Your task to perform on an android device: Show the shopping cart on target.com. Add "razer blade" to the cart on target.com, then select checkout. Image 0: 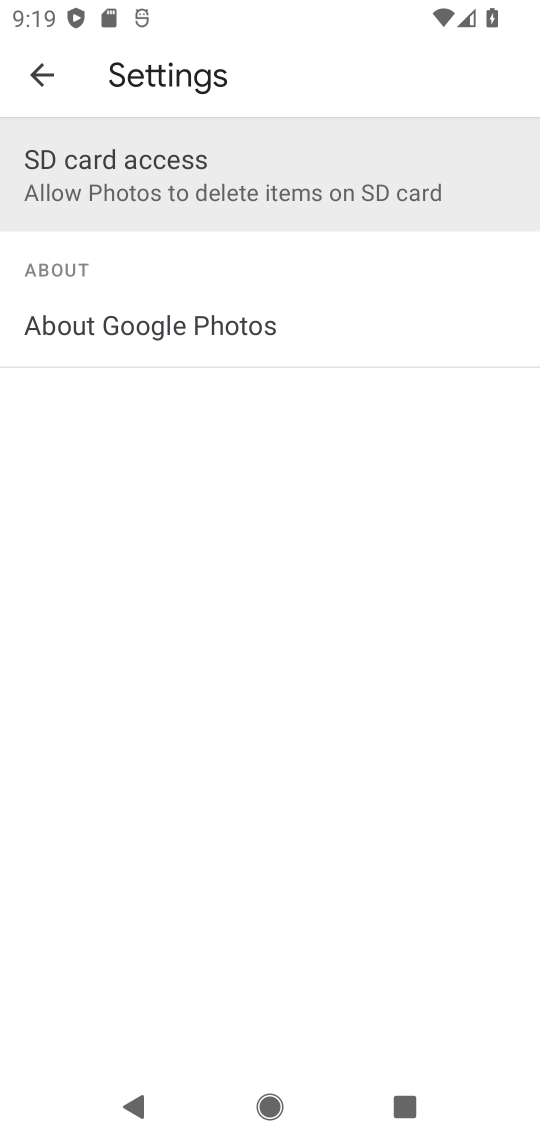
Step 0: press home button
Your task to perform on an android device: Show the shopping cart on target.com. Add "razer blade" to the cart on target.com, then select checkout. Image 1: 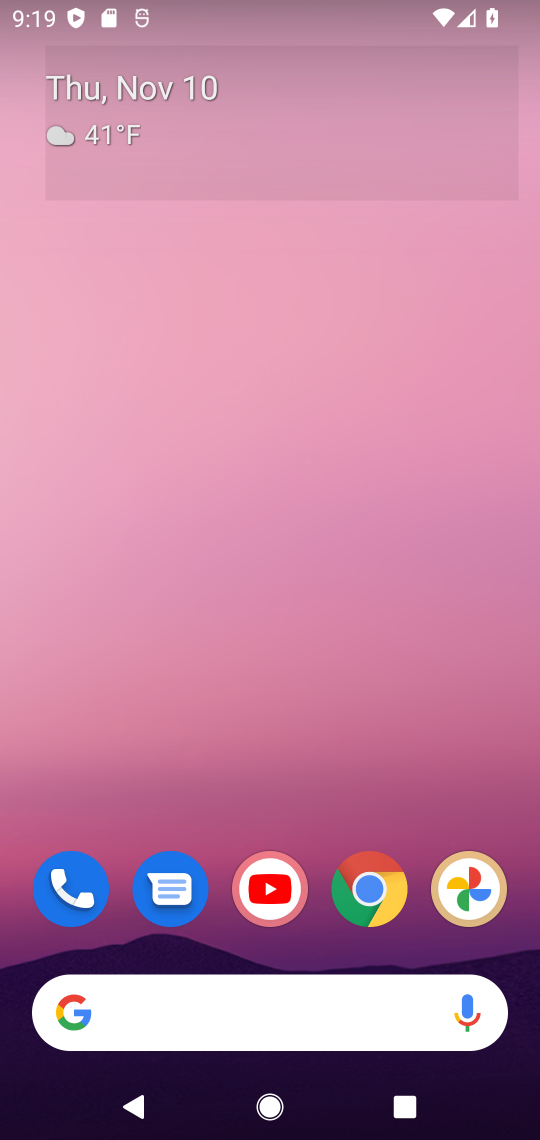
Step 1: click (369, 891)
Your task to perform on an android device: Show the shopping cart on target.com. Add "razer blade" to the cart on target.com, then select checkout. Image 2: 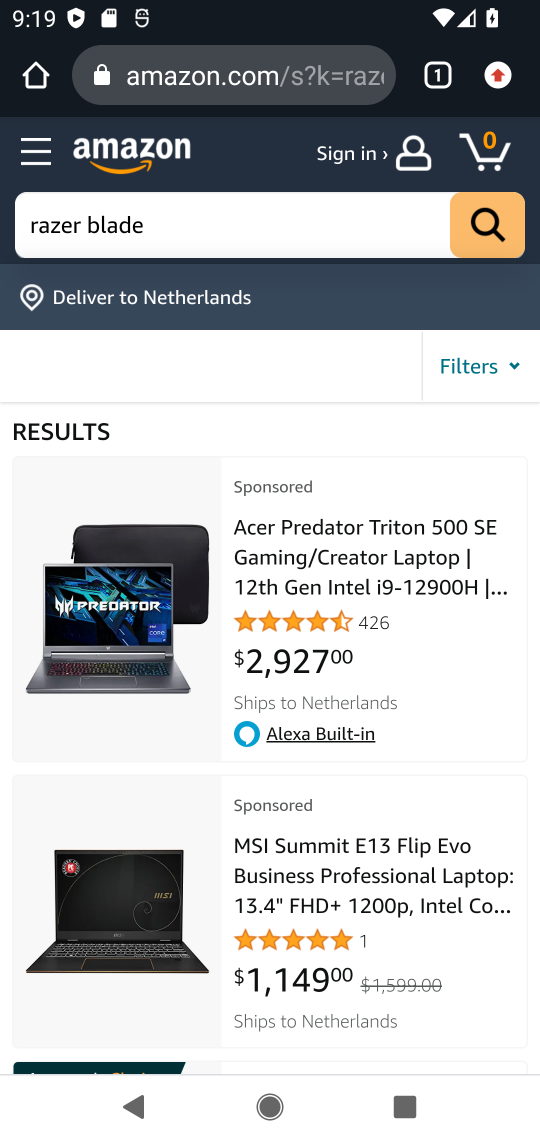
Step 2: click (277, 76)
Your task to perform on an android device: Show the shopping cart on target.com. Add "razer blade" to the cart on target.com, then select checkout. Image 3: 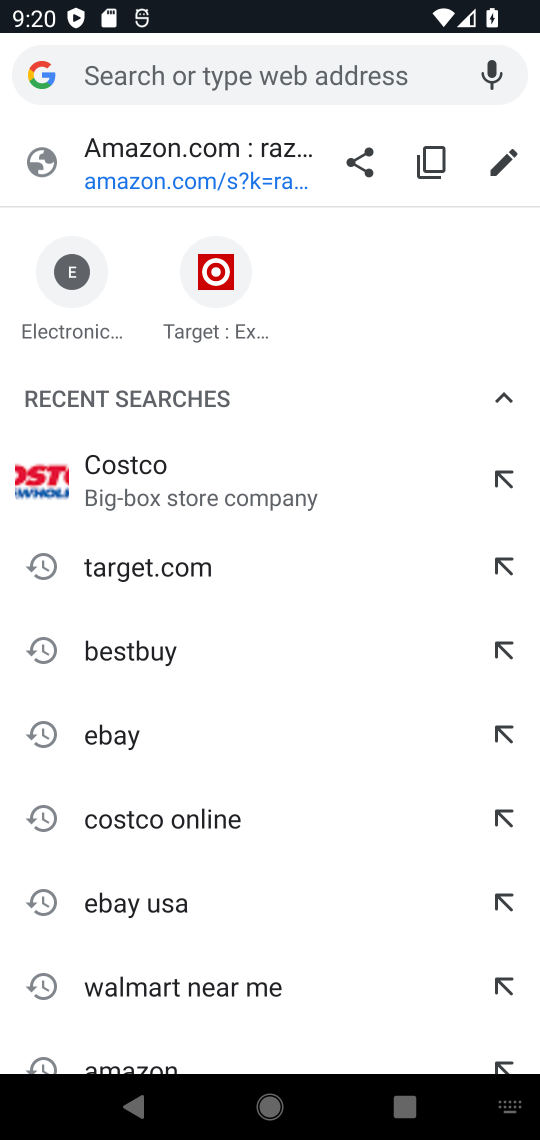
Step 3: click (116, 562)
Your task to perform on an android device: Show the shopping cart on target.com. Add "razer blade" to the cart on target.com, then select checkout. Image 4: 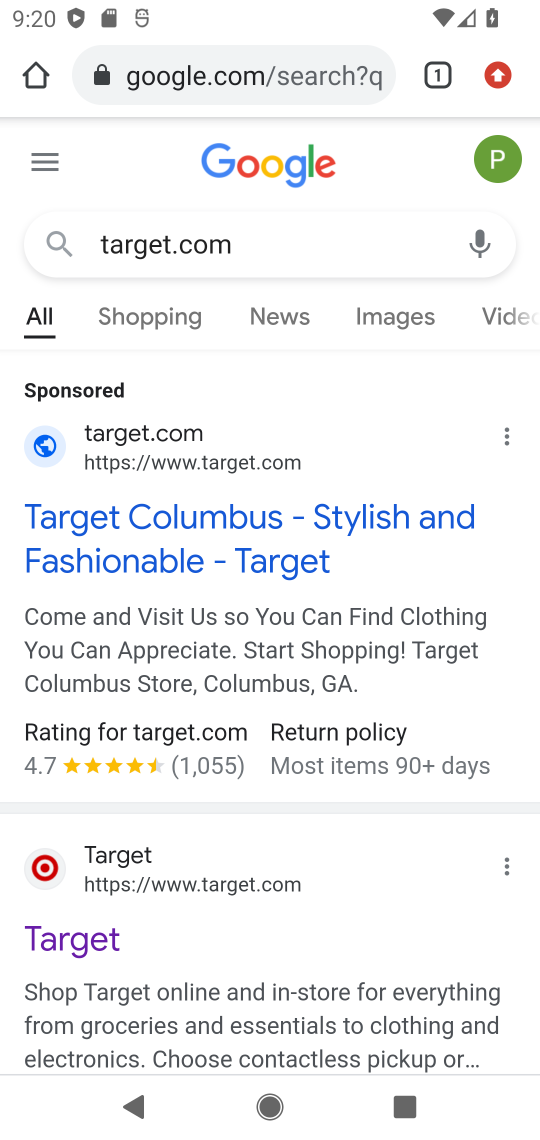
Step 4: click (71, 947)
Your task to perform on an android device: Show the shopping cart on target.com. Add "razer blade" to the cart on target.com, then select checkout. Image 5: 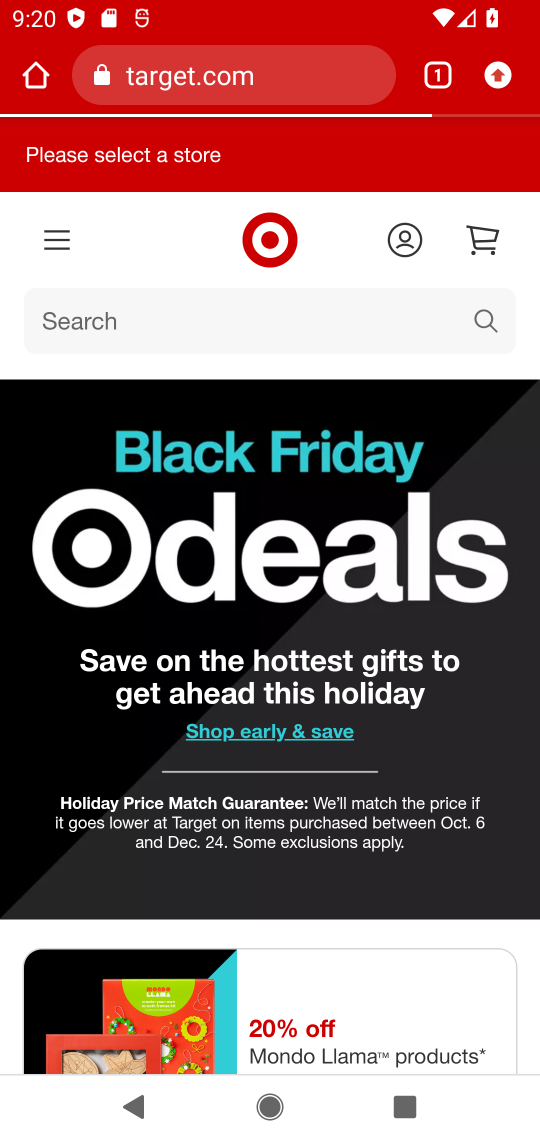
Step 5: click (148, 320)
Your task to perform on an android device: Show the shopping cart on target.com. Add "razer blade" to the cart on target.com, then select checkout. Image 6: 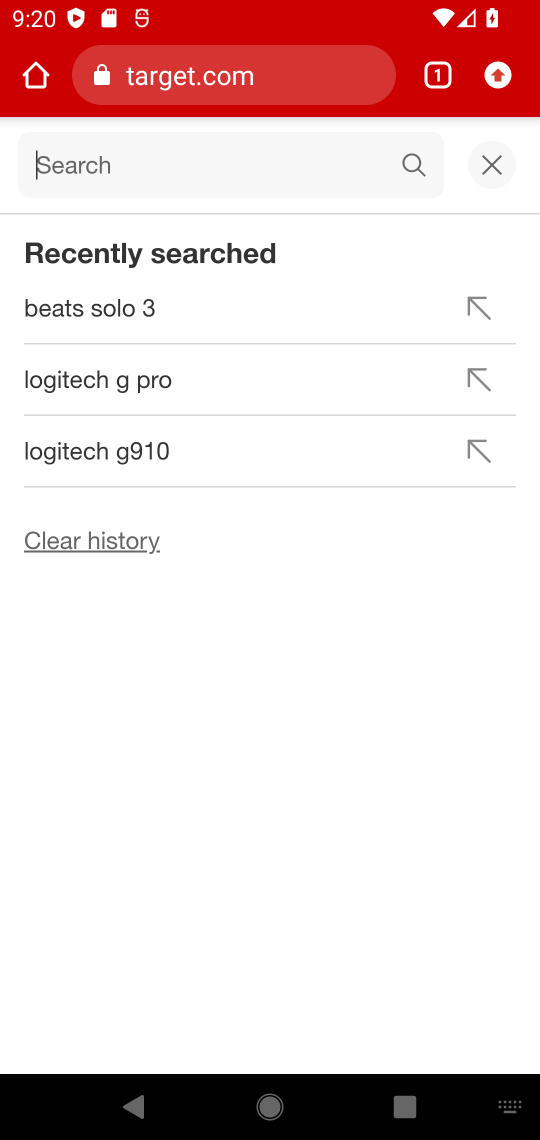
Step 6: type "razer blade"
Your task to perform on an android device: Show the shopping cart on target.com. Add "razer blade" to the cart on target.com, then select checkout. Image 7: 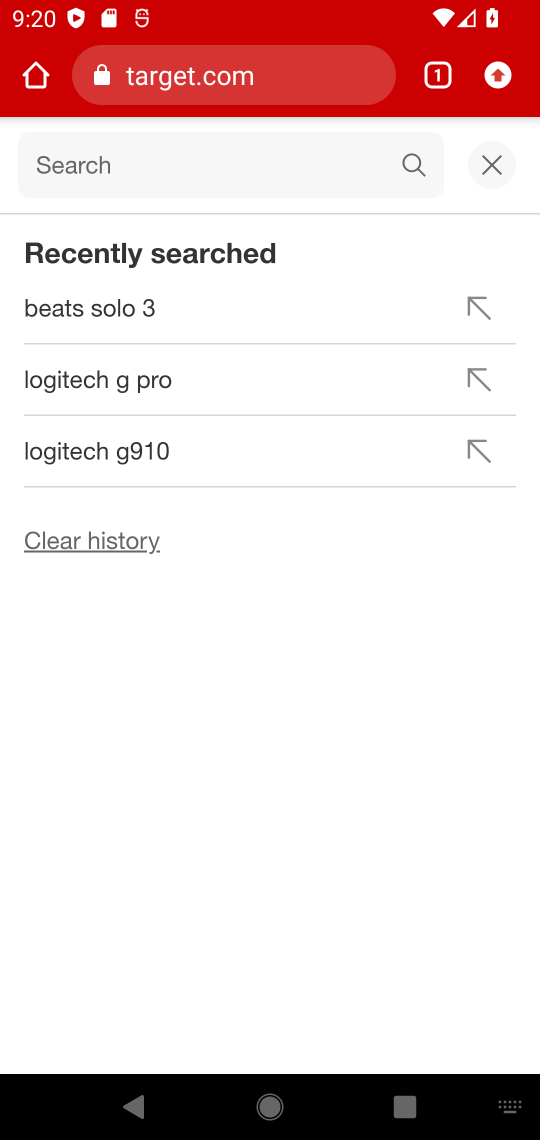
Step 7: press enter
Your task to perform on an android device: Show the shopping cart on target.com. Add "razer blade" to the cart on target.com, then select checkout. Image 8: 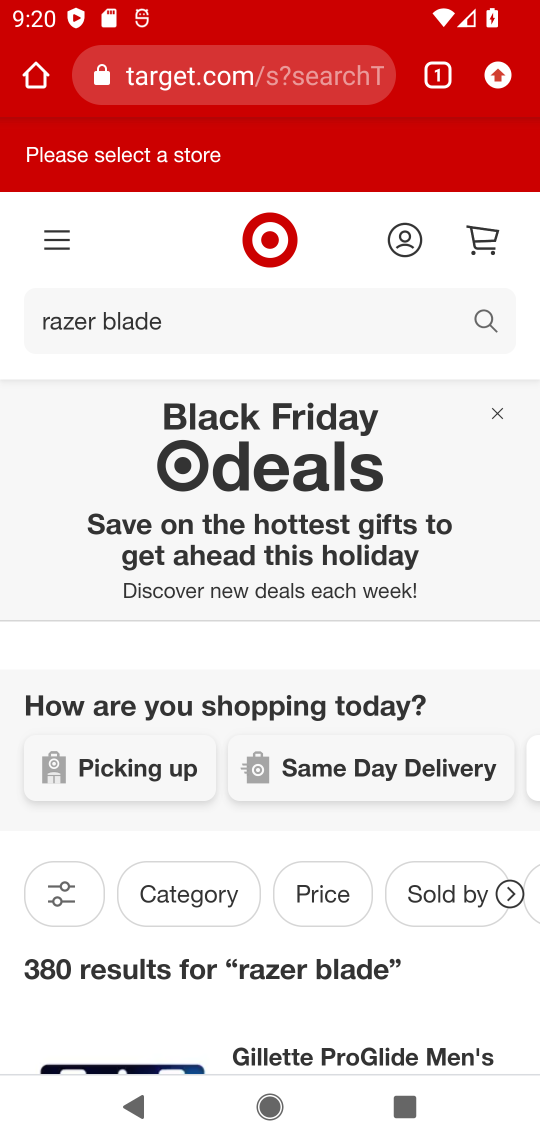
Step 8: task complete